Your task to perform on an android device: see creations saved in the google photos Image 0: 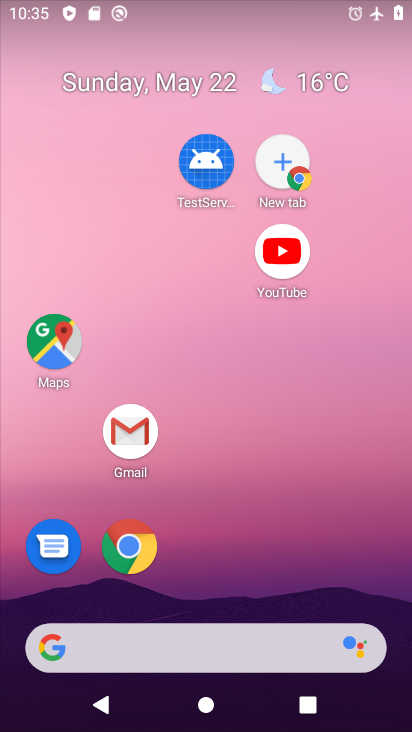
Step 0: drag from (258, 708) to (259, 212)
Your task to perform on an android device: see creations saved in the google photos Image 1: 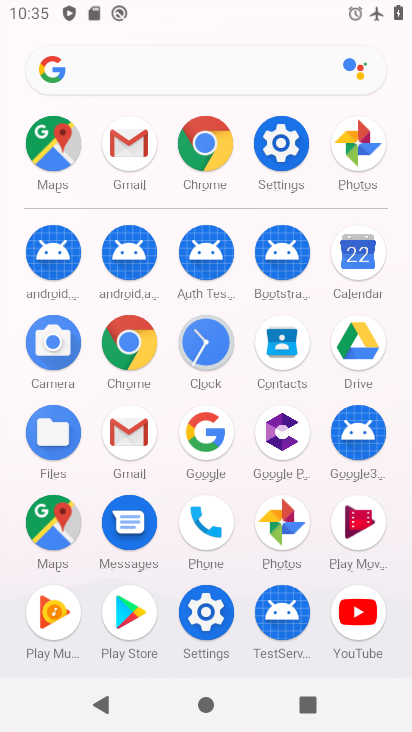
Step 1: click (271, 517)
Your task to perform on an android device: see creations saved in the google photos Image 2: 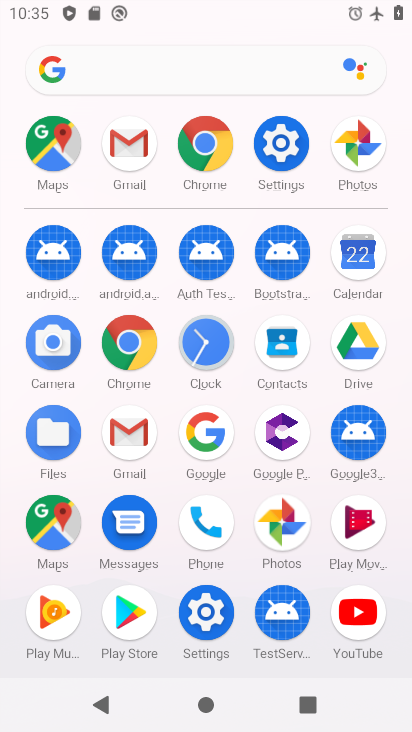
Step 2: click (271, 517)
Your task to perform on an android device: see creations saved in the google photos Image 3: 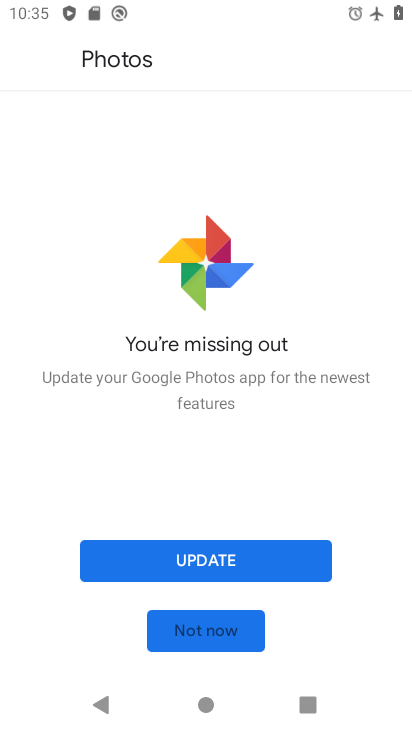
Step 3: click (213, 642)
Your task to perform on an android device: see creations saved in the google photos Image 4: 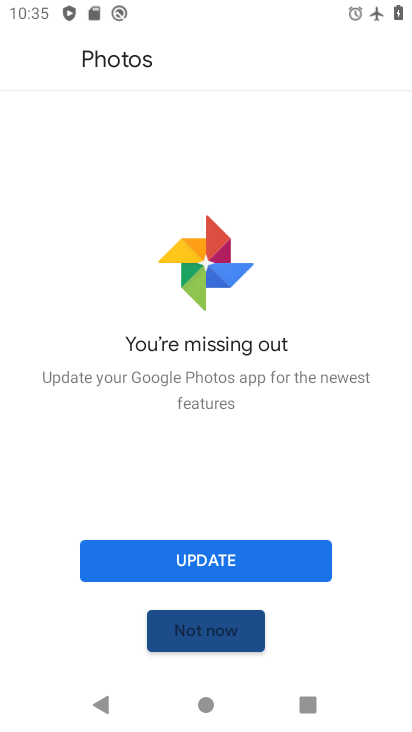
Step 4: click (211, 637)
Your task to perform on an android device: see creations saved in the google photos Image 5: 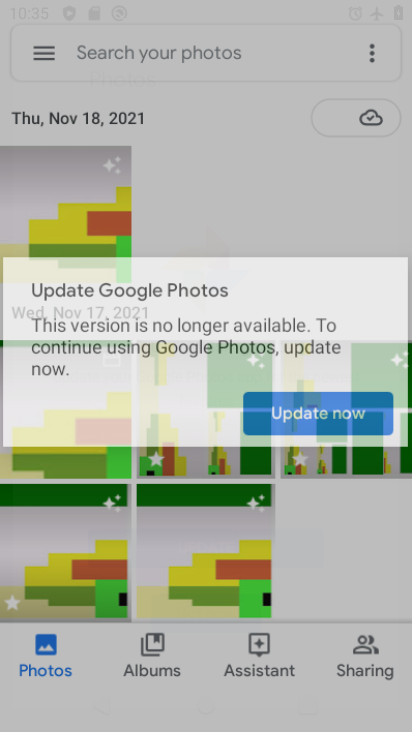
Step 5: click (211, 636)
Your task to perform on an android device: see creations saved in the google photos Image 6: 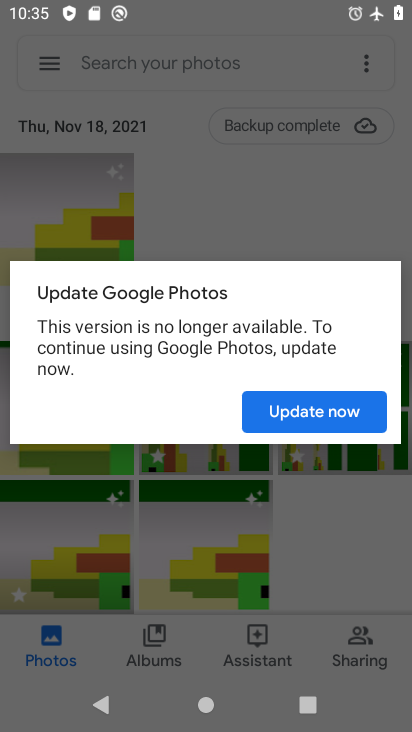
Step 6: click (328, 503)
Your task to perform on an android device: see creations saved in the google photos Image 7: 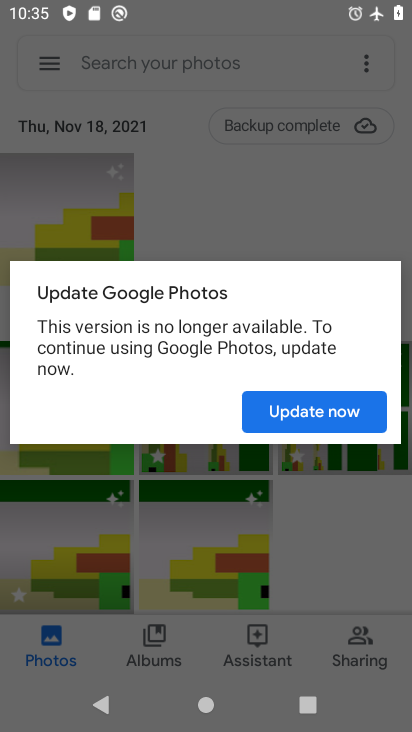
Step 7: click (328, 503)
Your task to perform on an android device: see creations saved in the google photos Image 8: 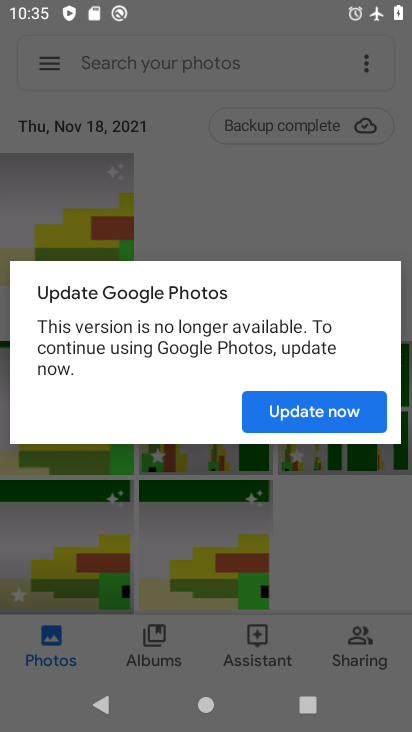
Step 8: click (328, 503)
Your task to perform on an android device: see creations saved in the google photos Image 9: 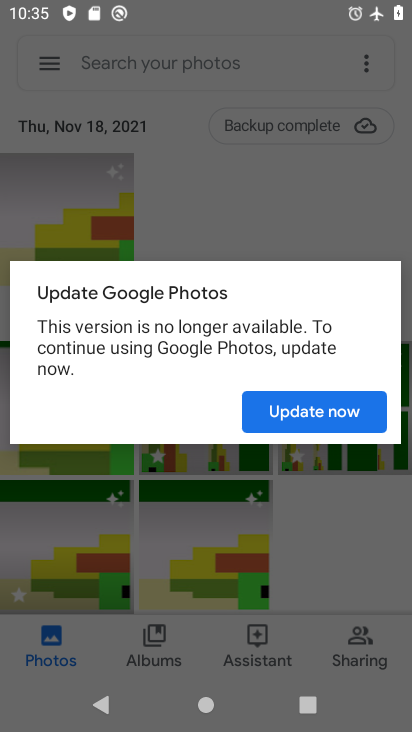
Step 9: click (328, 496)
Your task to perform on an android device: see creations saved in the google photos Image 10: 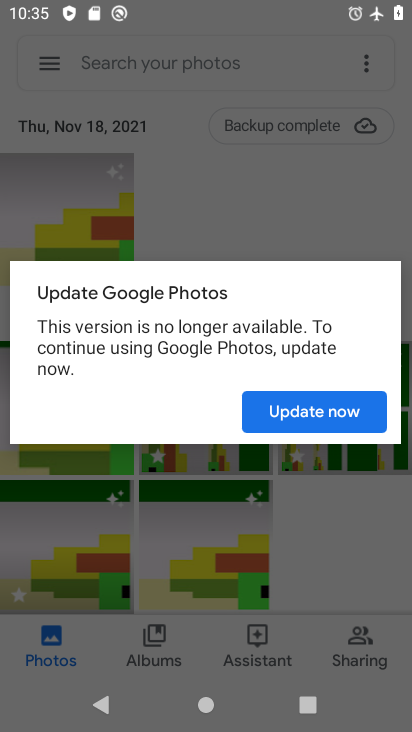
Step 10: click (334, 481)
Your task to perform on an android device: see creations saved in the google photos Image 11: 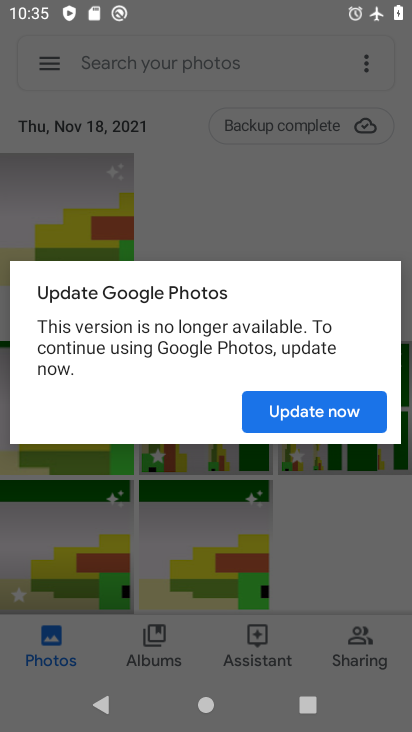
Step 11: task complete